Your task to perform on an android device: Open calendar and show me the second week of next month Image 0: 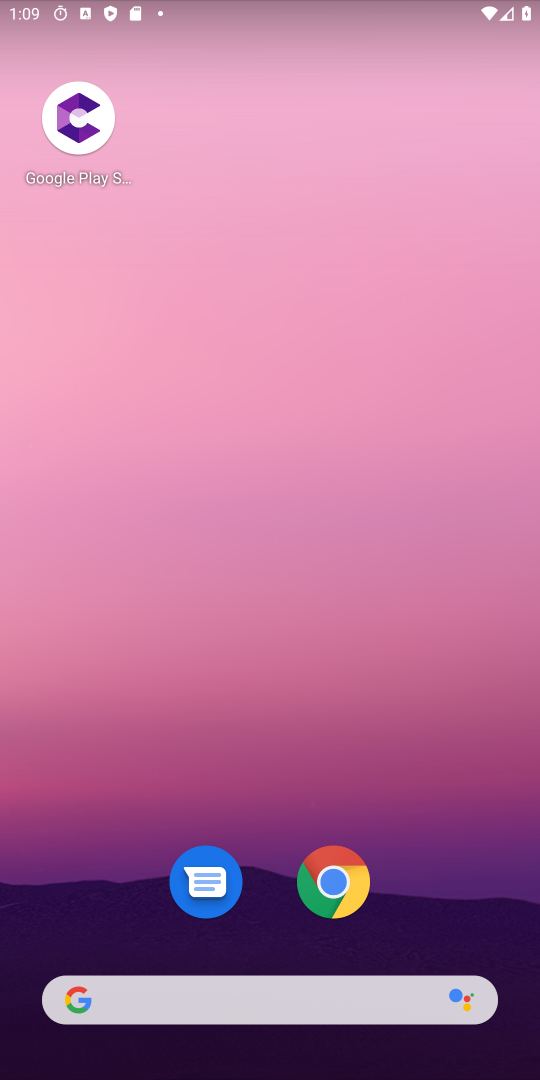
Step 0: drag from (294, 705) to (428, 35)
Your task to perform on an android device: Open calendar and show me the second week of next month Image 1: 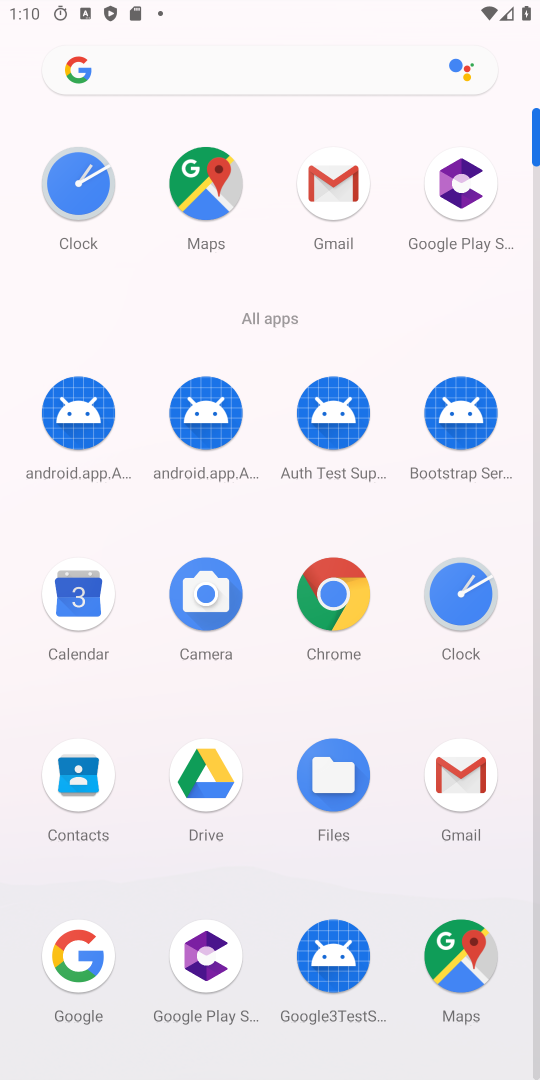
Step 1: click (79, 609)
Your task to perform on an android device: Open calendar and show me the second week of next month Image 2: 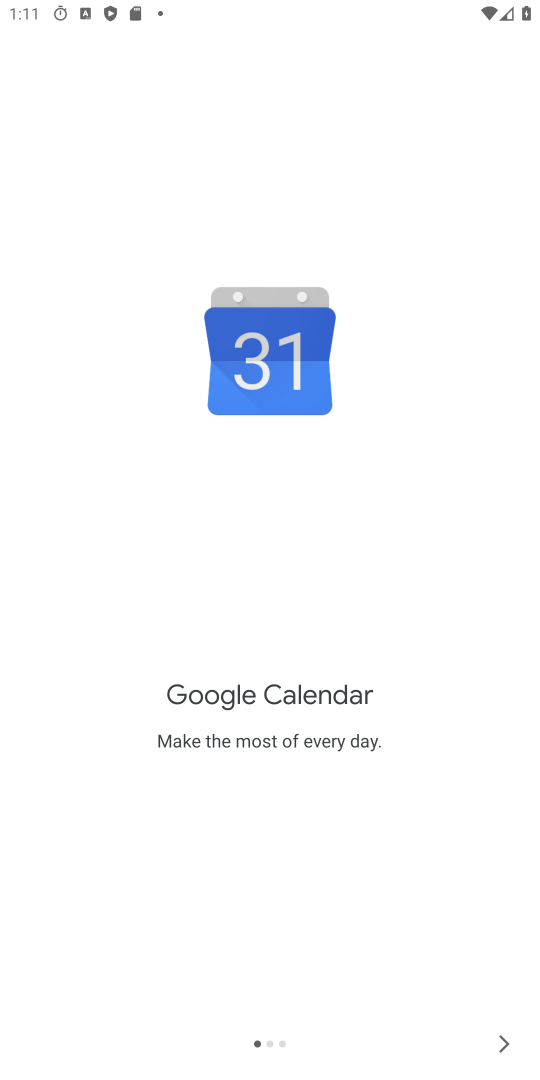
Step 2: click (469, 1045)
Your task to perform on an android device: Open calendar and show me the second week of next month Image 3: 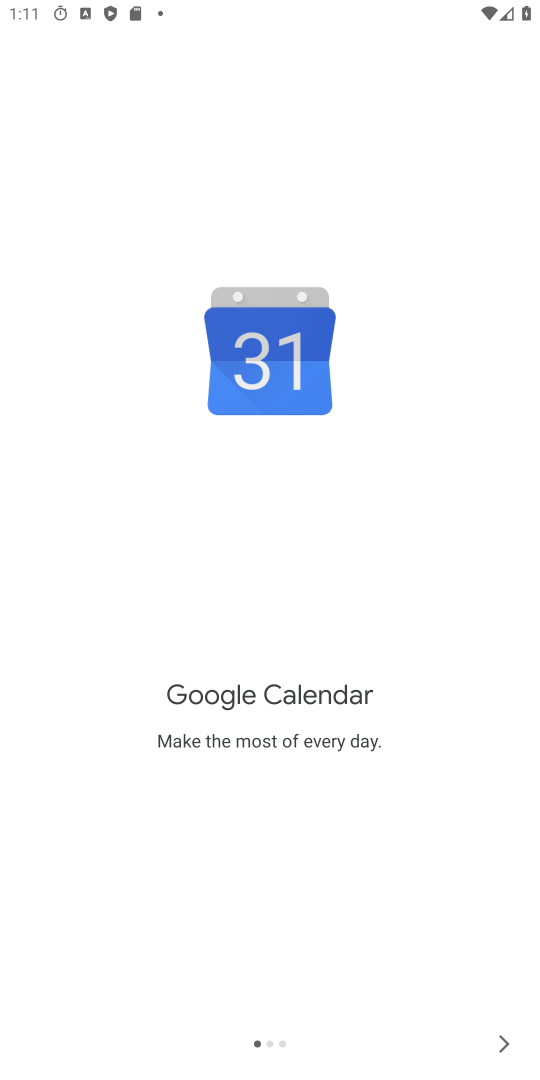
Step 3: click (484, 1031)
Your task to perform on an android device: Open calendar and show me the second week of next month Image 4: 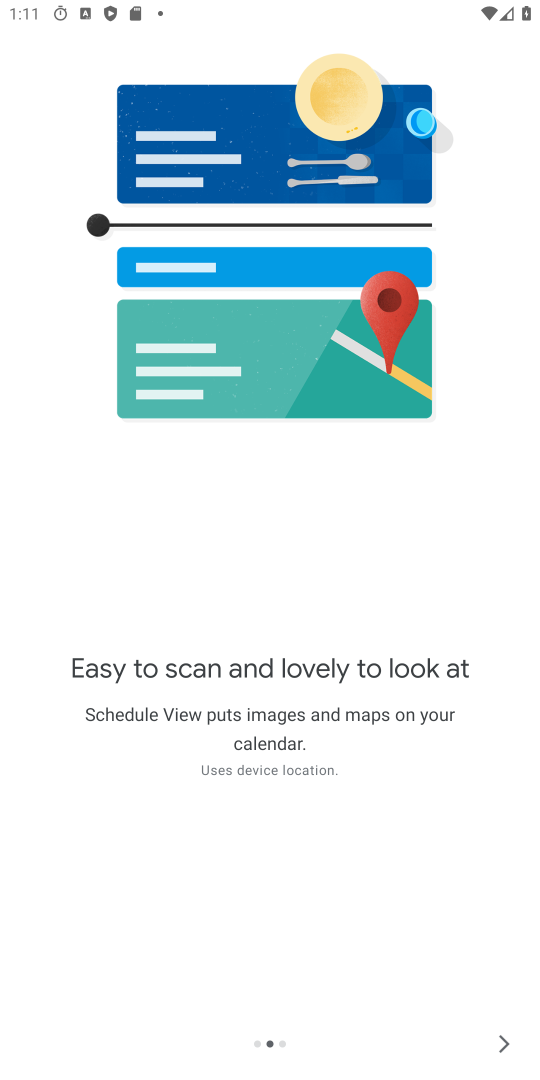
Step 4: click (503, 1043)
Your task to perform on an android device: Open calendar and show me the second week of next month Image 5: 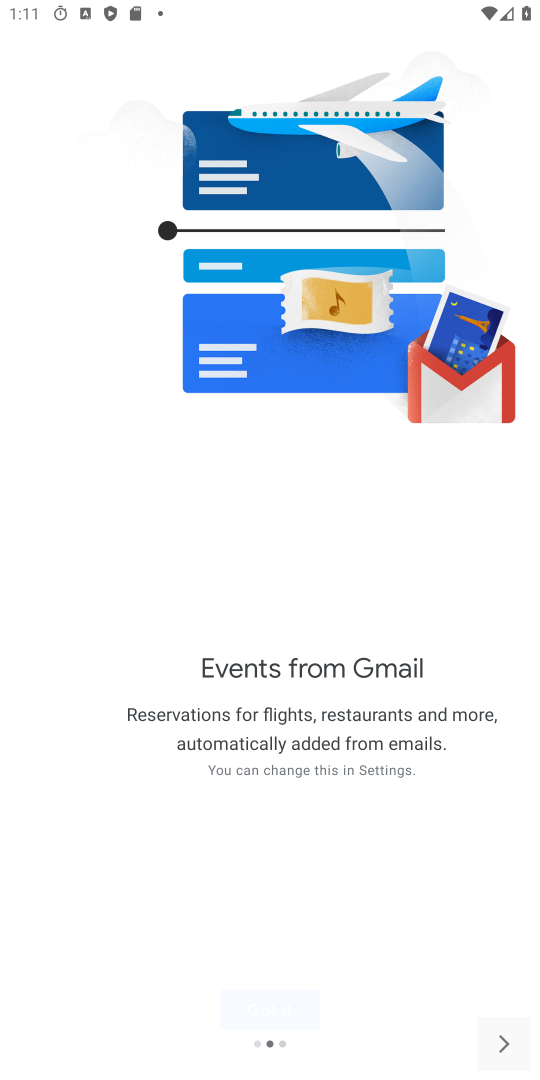
Step 5: click (501, 1041)
Your task to perform on an android device: Open calendar and show me the second week of next month Image 6: 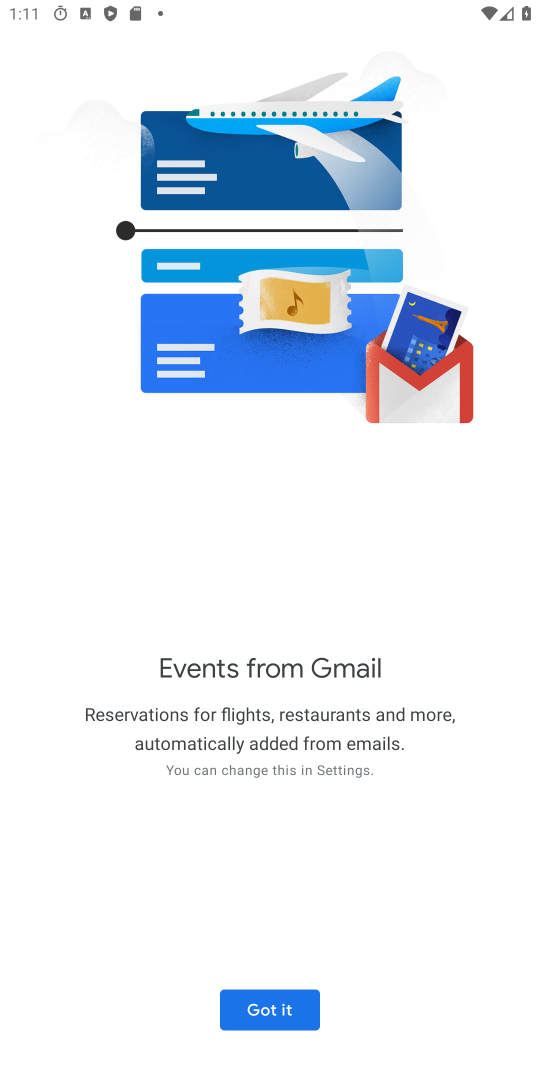
Step 6: click (501, 1041)
Your task to perform on an android device: Open calendar and show me the second week of next month Image 7: 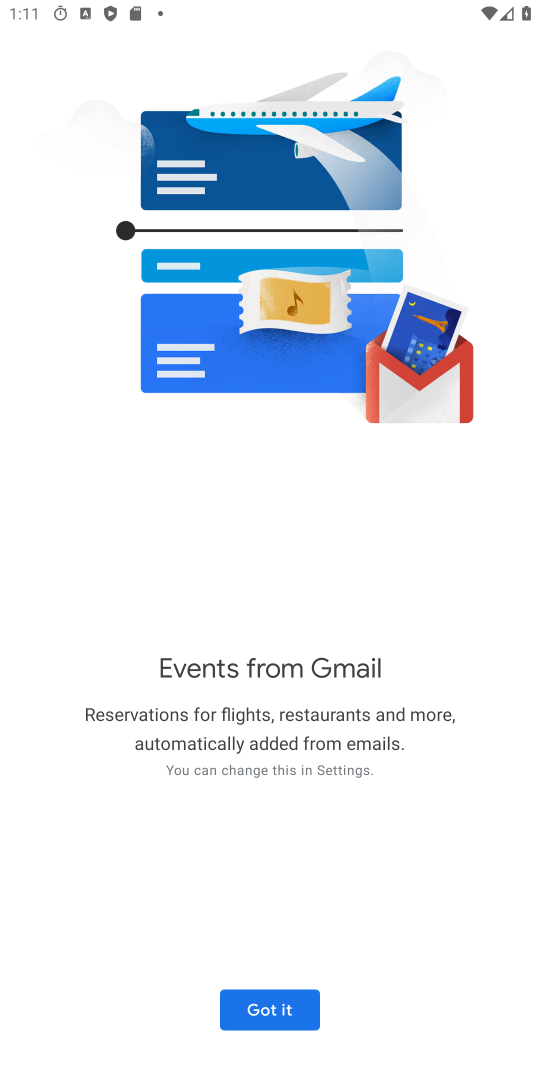
Step 7: click (274, 987)
Your task to perform on an android device: Open calendar and show me the second week of next month Image 8: 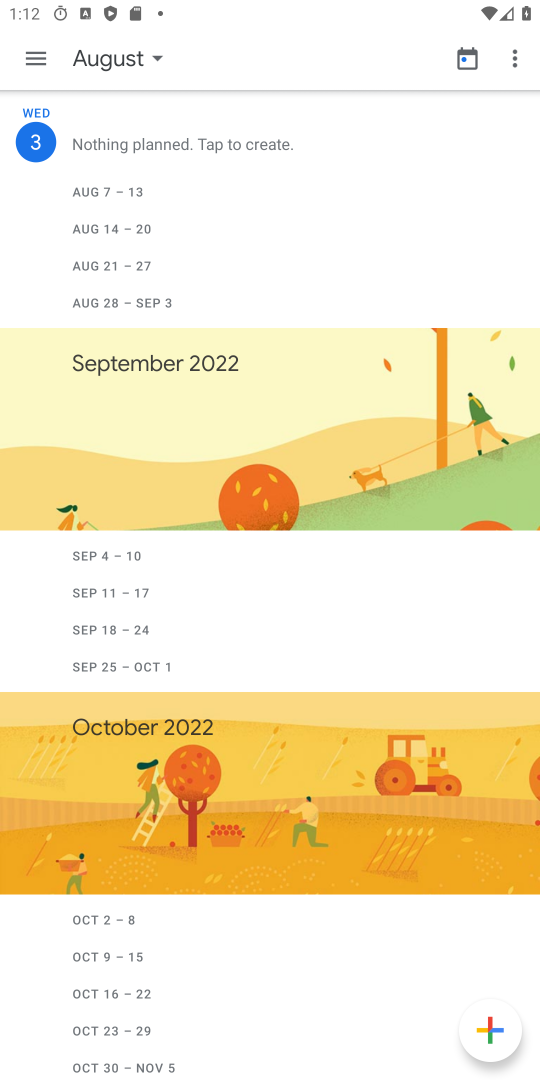
Step 8: click (120, 62)
Your task to perform on an android device: Open calendar and show me the second week of next month Image 9: 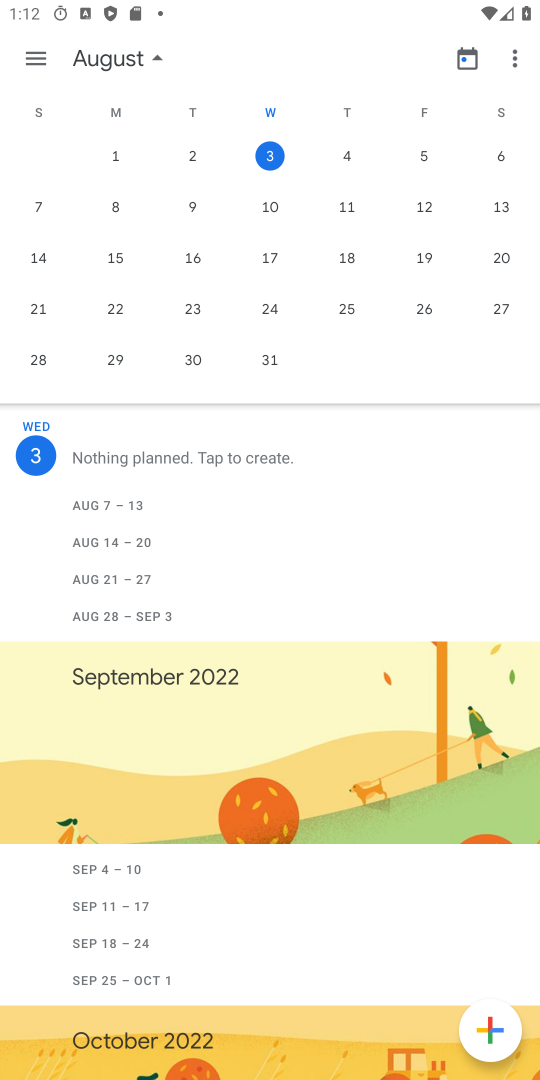
Step 9: drag from (399, 264) to (15, 257)
Your task to perform on an android device: Open calendar and show me the second week of next month Image 10: 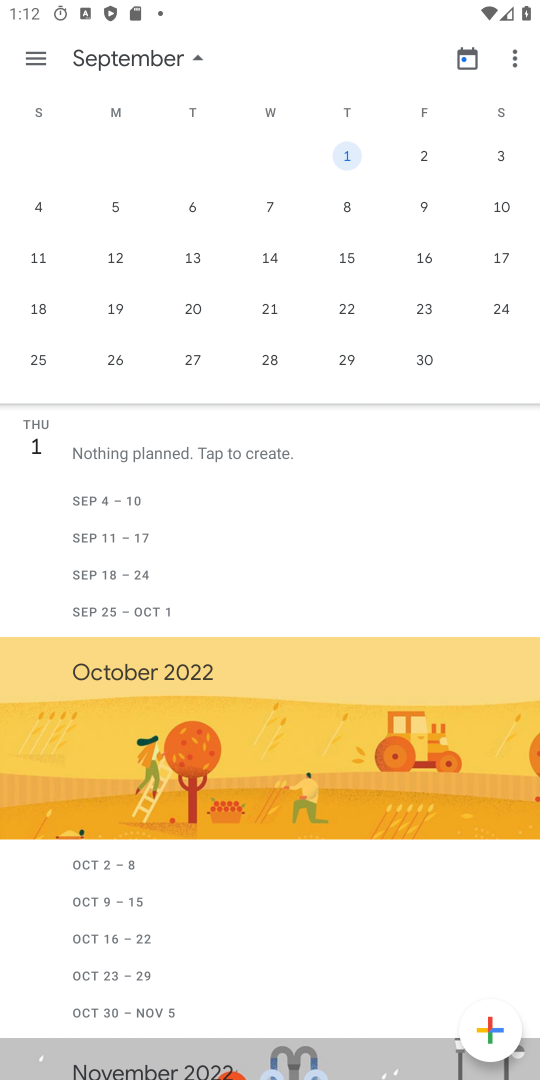
Step 10: click (54, 257)
Your task to perform on an android device: Open calendar and show me the second week of next month Image 11: 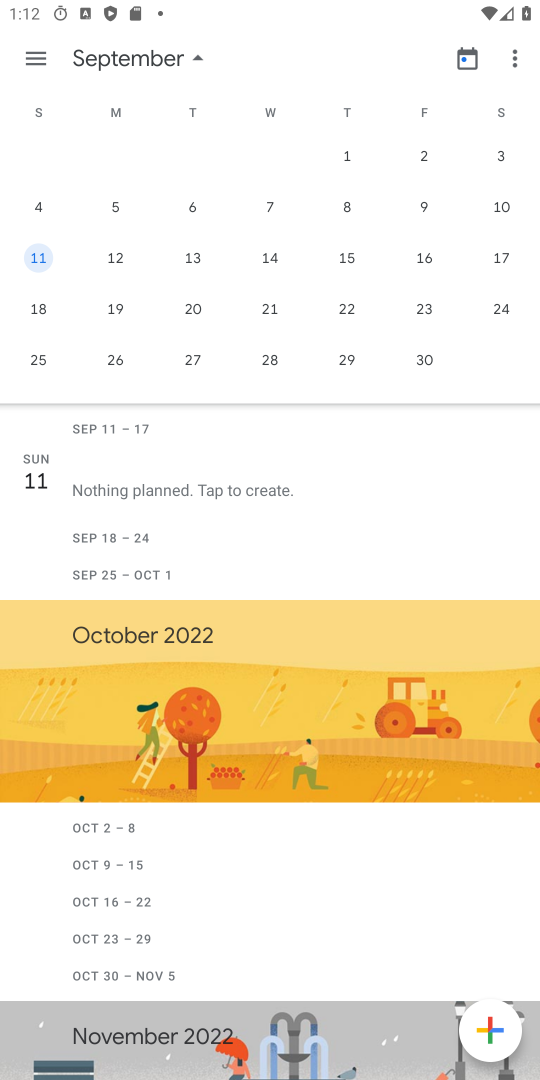
Step 11: click (175, 55)
Your task to perform on an android device: Open calendar and show me the second week of next month Image 12: 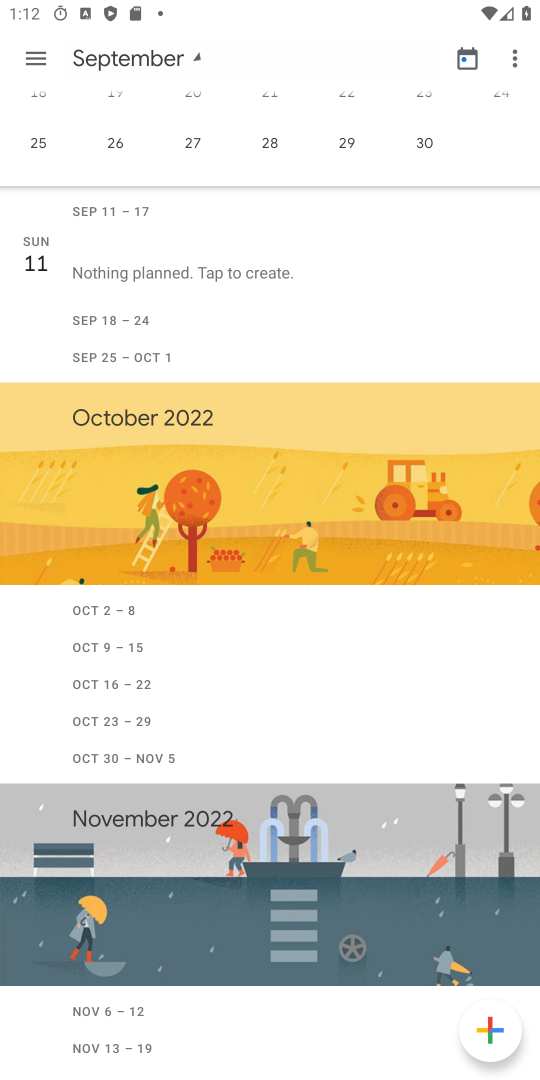
Step 12: task complete